Your task to perform on an android device: change the clock display to show seconds Image 0: 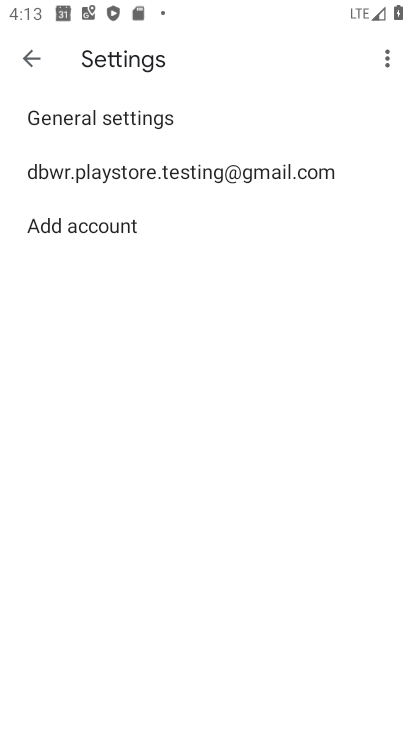
Step 0: press home button
Your task to perform on an android device: change the clock display to show seconds Image 1: 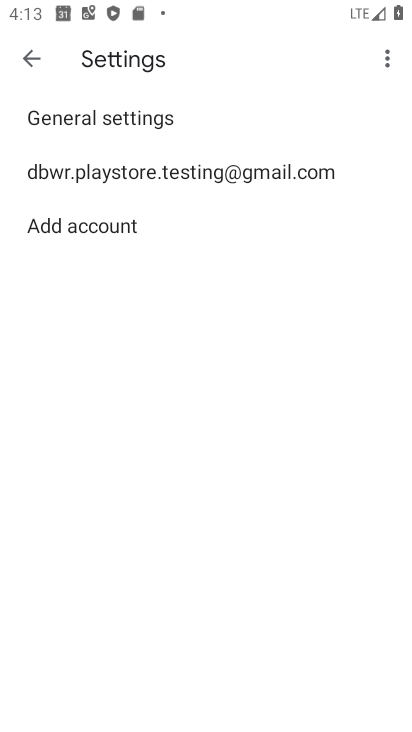
Step 1: press home button
Your task to perform on an android device: change the clock display to show seconds Image 2: 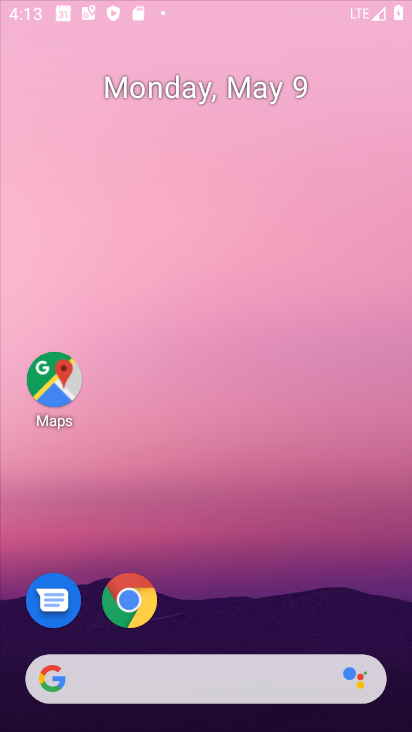
Step 2: press home button
Your task to perform on an android device: change the clock display to show seconds Image 3: 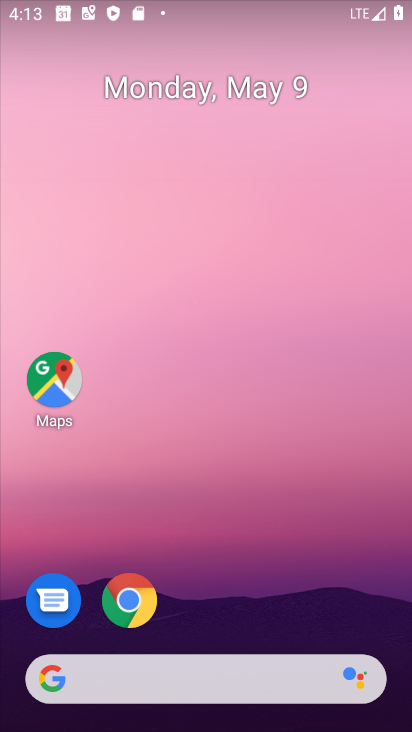
Step 3: drag from (212, 681) to (251, 112)
Your task to perform on an android device: change the clock display to show seconds Image 4: 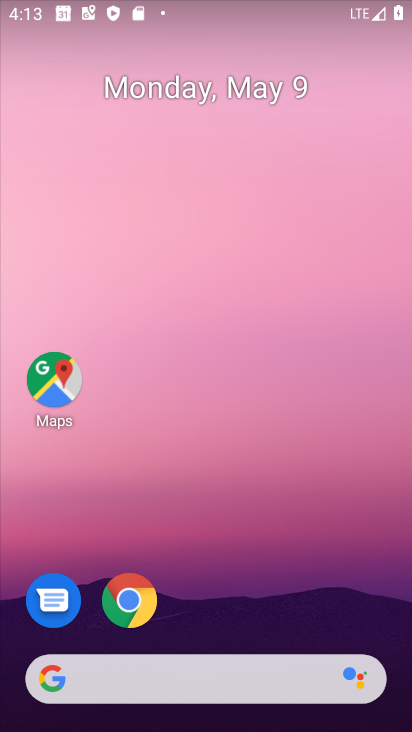
Step 4: drag from (156, 663) to (111, 94)
Your task to perform on an android device: change the clock display to show seconds Image 5: 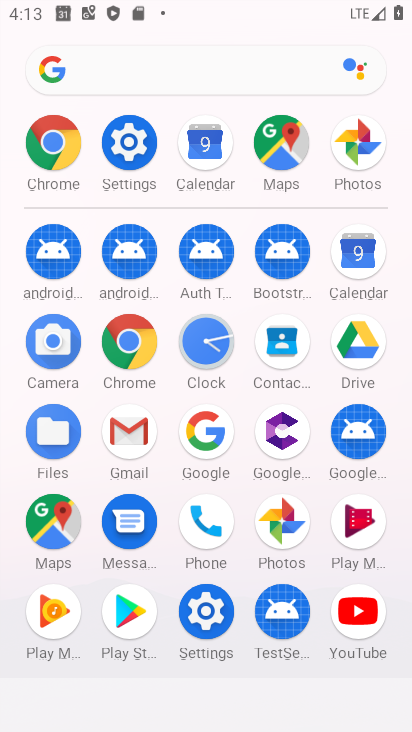
Step 5: click (216, 365)
Your task to perform on an android device: change the clock display to show seconds Image 6: 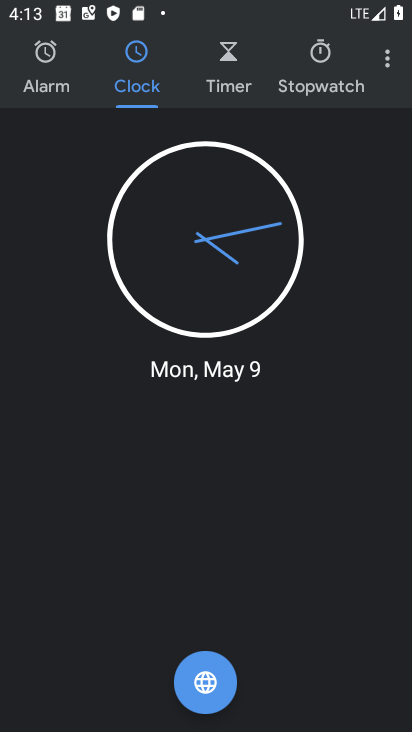
Step 6: drag from (381, 58) to (280, 127)
Your task to perform on an android device: change the clock display to show seconds Image 7: 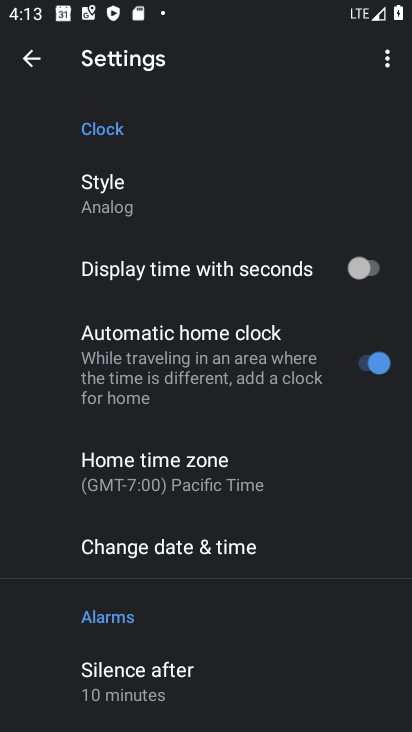
Step 7: drag from (196, 693) to (259, 272)
Your task to perform on an android device: change the clock display to show seconds Image 8: 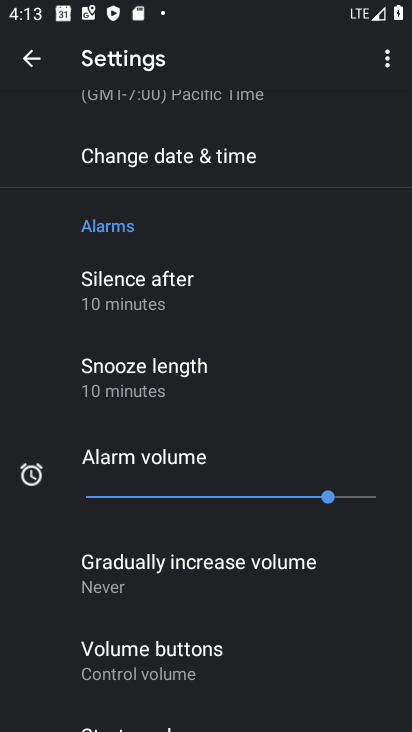
Step 8: drag from (228, 172) to (189, 699)
Your task to perform on an android device: change the clock display to show seconds Image 9: 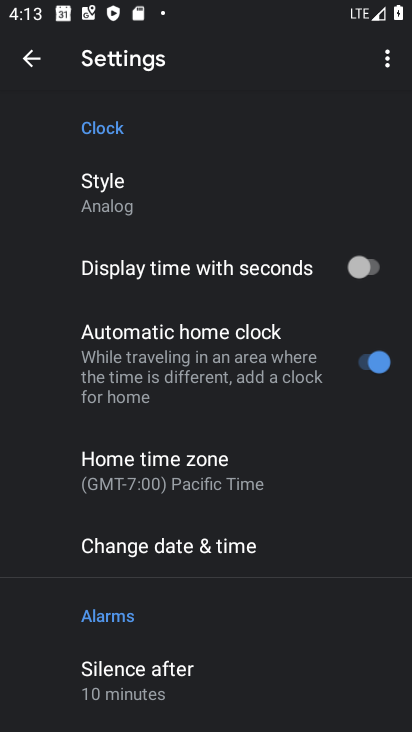
Step 9: click (377, 267)
Your task to perform on an android device: change the clock display to show seconds Image 10: 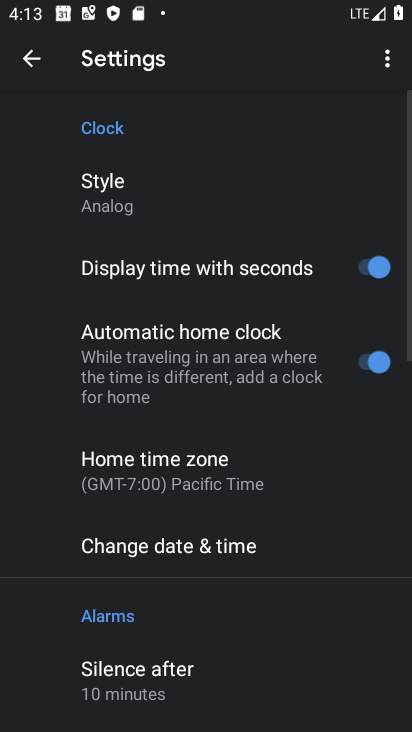
Step 10: task complete